Your task to perform on an android device: Set the phone to "Do not disturb". Image 0: 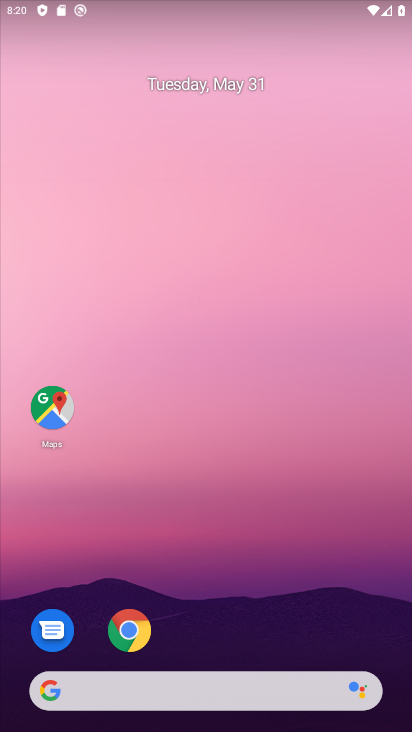
Step 0: drag from (237, 1) to (255, 692)
Your task to perform on an android device: Set the phone to "Do not disturb". Image 1: 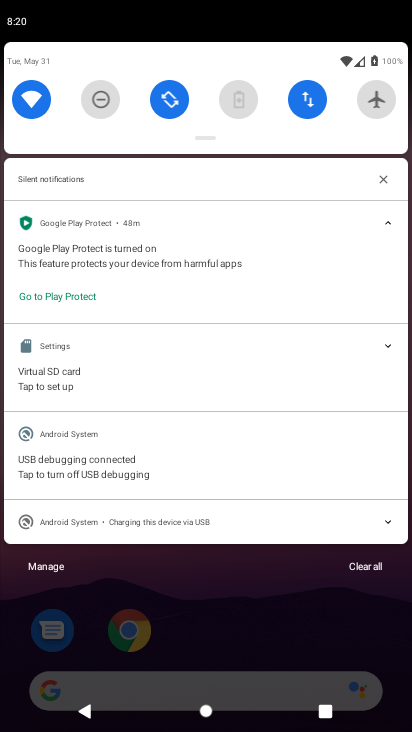
Step 1: click (102, 107)
Your task to perform on an android device: Set the phone to "Do not disturb". Image 2: 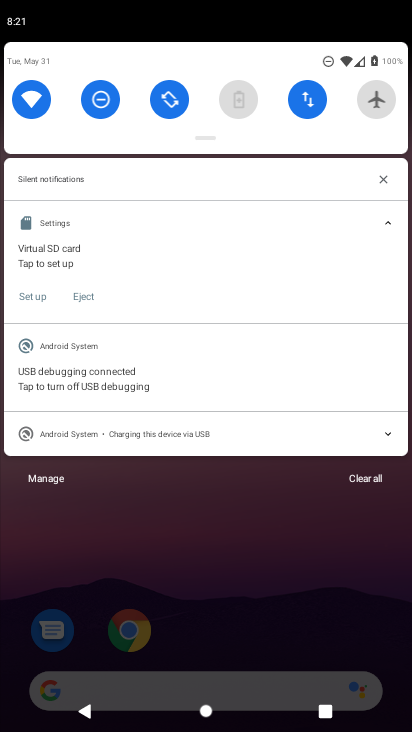
Step 2: task complete